Your task to perform on an android device: turn on the 12-hour format for clock Image 0: 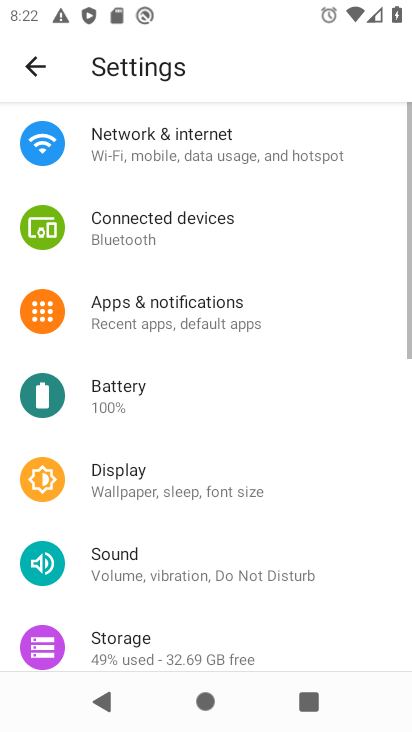
Step 0: press home button
Your task to perform on an android device: turn on the 12-hour format for clock Image 1: 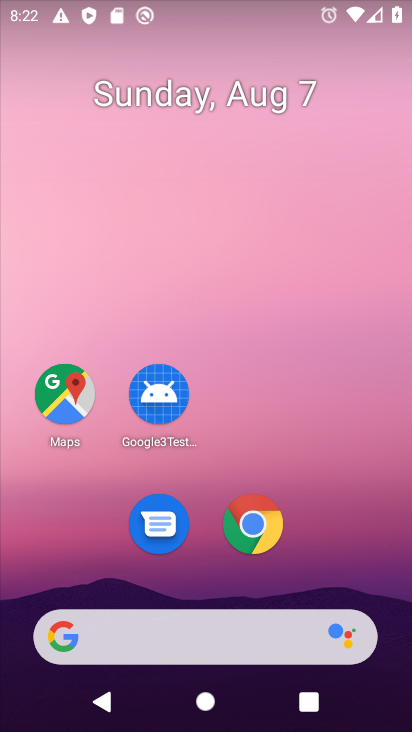
Step 1: drag from (278, 596) to (123, 4)
Your task to perform on an android device: turn on the 12-hour format for clock Image 2: 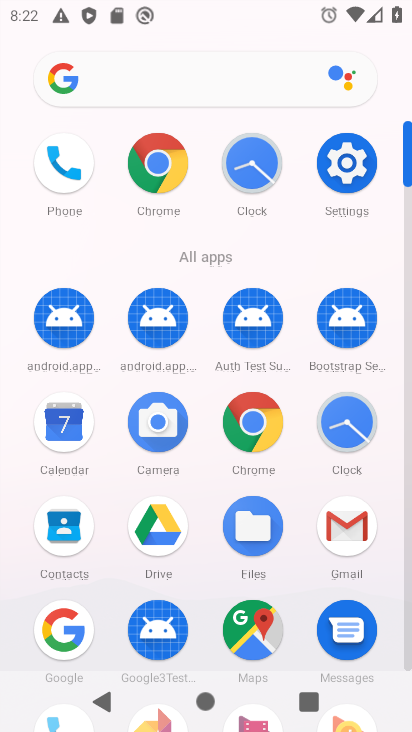
Step 2: click (357, 414)
Your task to perform on an android device: turn on the 12-hour format for clock Image 3: 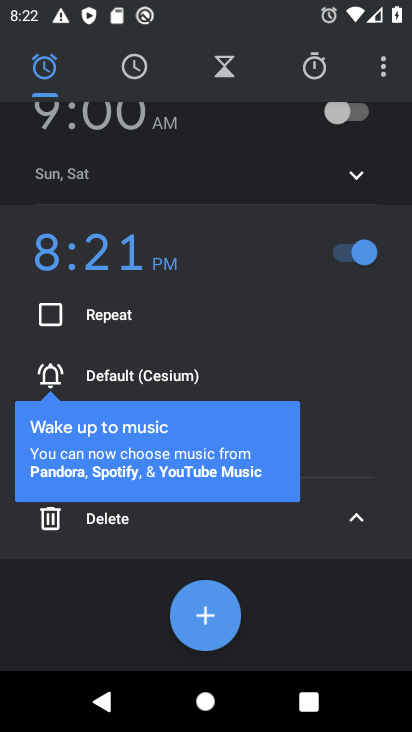
Step 3: click (390, 80)
Your task to perform on an android device: turn on the 12-hour format for clock Image 4: 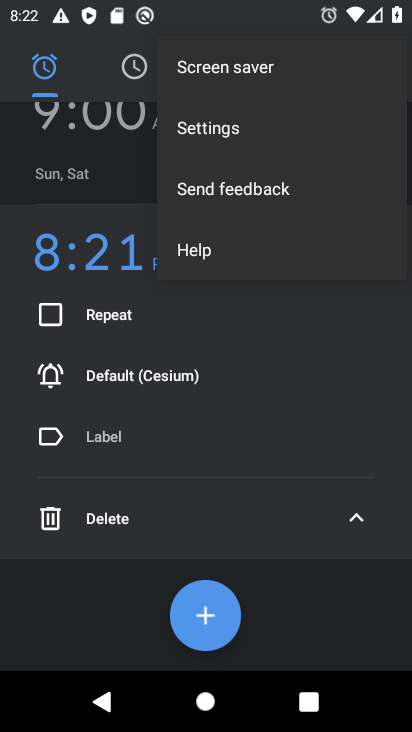
Step 4: click (239, 119)
Your task to perform on an android device: turn on the 12-hour format for clock Image 5: 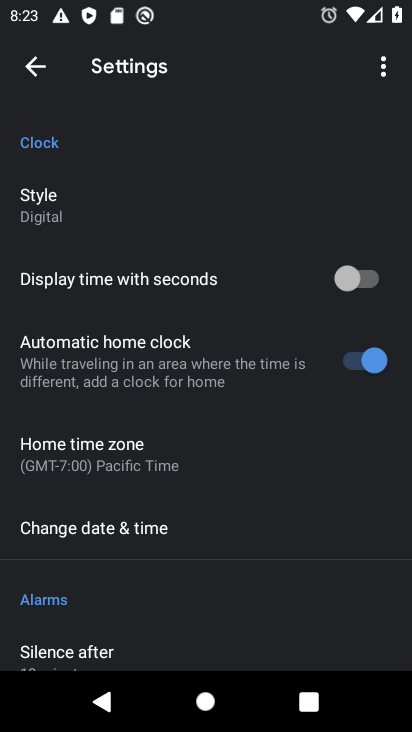
Step 5: drag from (342, 492) to (139, 4)
Your task to perform on an android device: turn on the 12-hour format for clock Image 6: 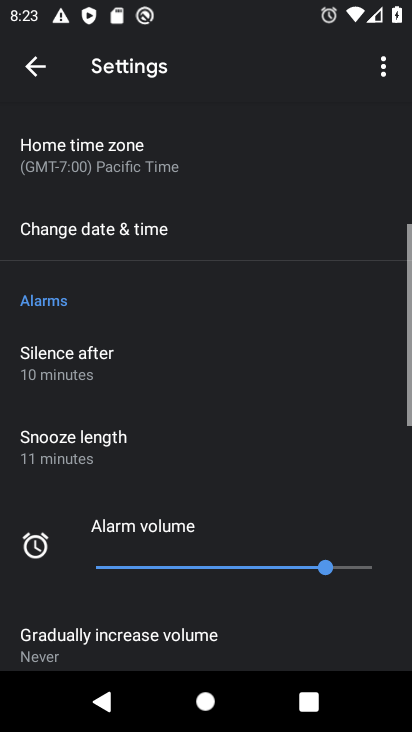
Step 6: drag from (211, 483) to (14, 36)
Your task to perform on an android device: turn on the 12-hour format for clock Image 7: 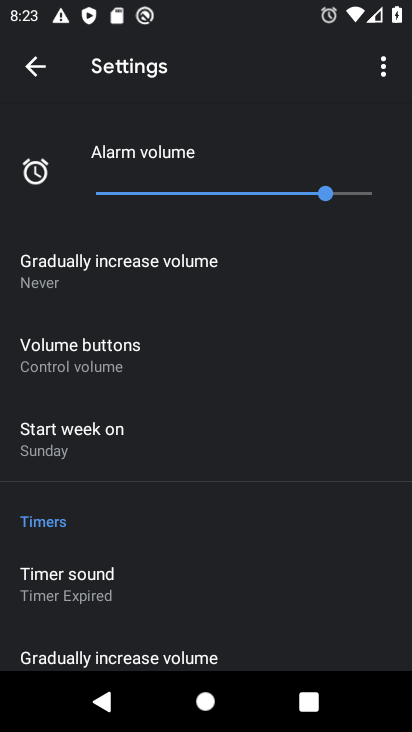
Step 7: drag from (172, 480) to (32, 62)
Your task to perform on an android device: turn on the 12-hour format for clock Image 8: 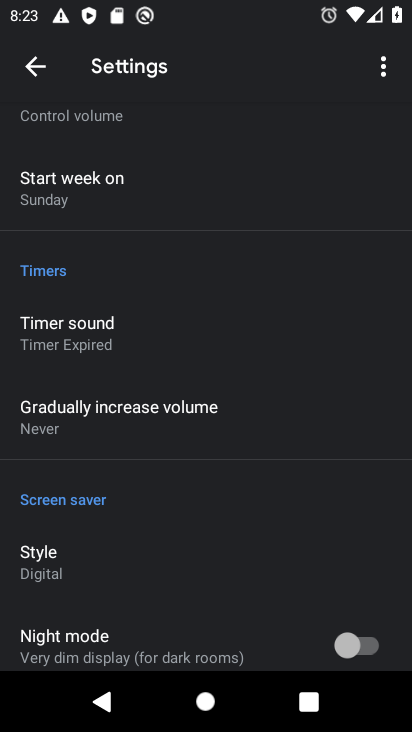
Step 8: drag from (346, 424) to (260, 90)
Your task to perform on an android device: turn on the 12-hour format for clock Image 9: 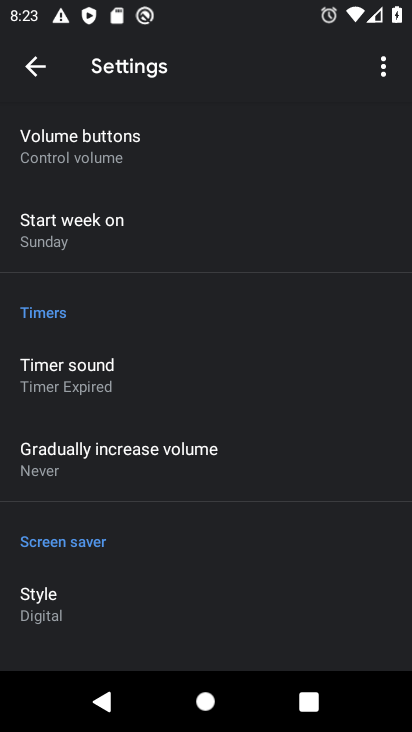
Step 9: drag from (196, 253) to (201, 477)
Your task to perform on an android device: turn on the 12-hour format for clock Image 10: 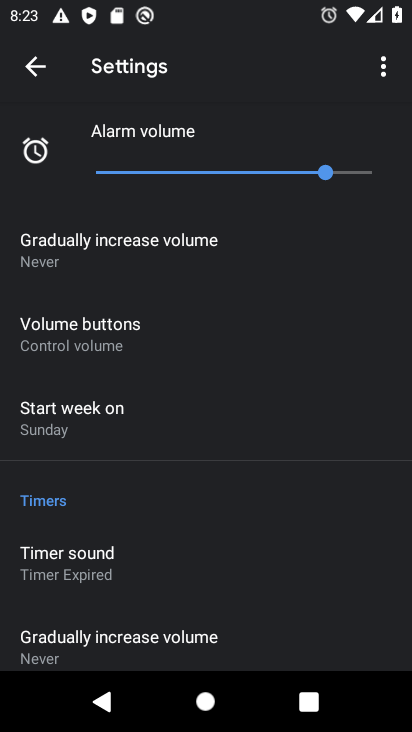
Step 10: drag from (63, 141) to (114, 510)
Your task to perform on an android device: turn on the 12-hour format for clock Image 11: 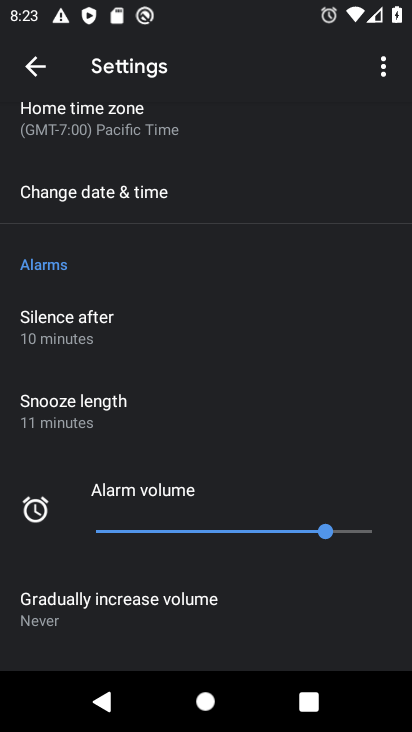
Step 11: click (112, 185)
Your task to perform on an android device: turn on the 12-hour format for clock Image 12: 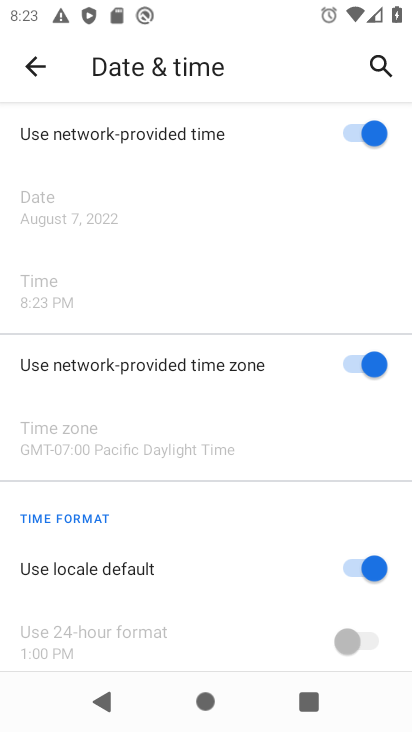
Step 12: task complete